Your task to perform on an android device: What's the weather today? Image 0: 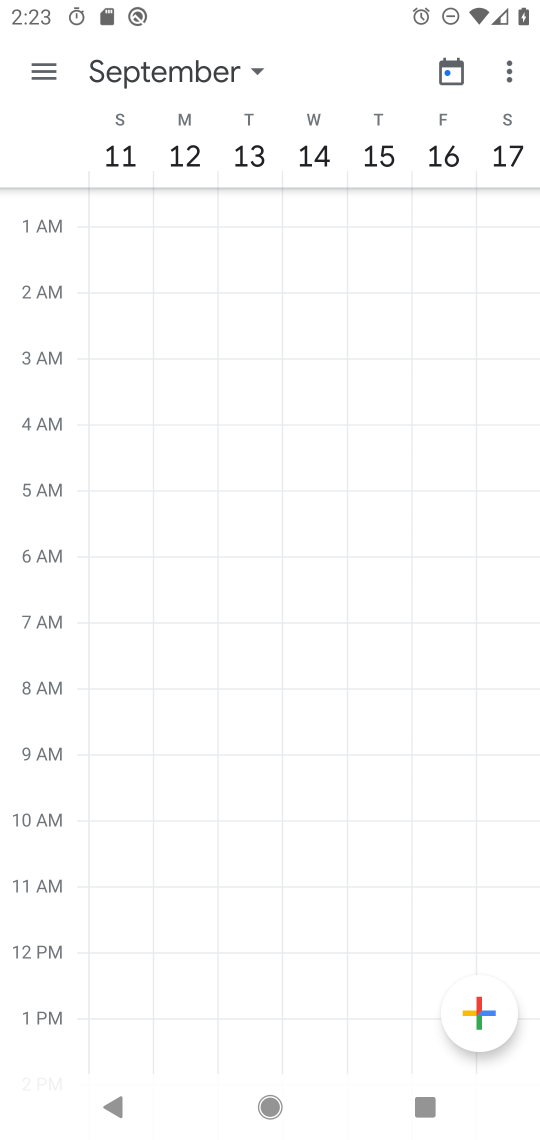
Step 0: press home button
Your task to perform on an android device: What's the weather today? Image 1: 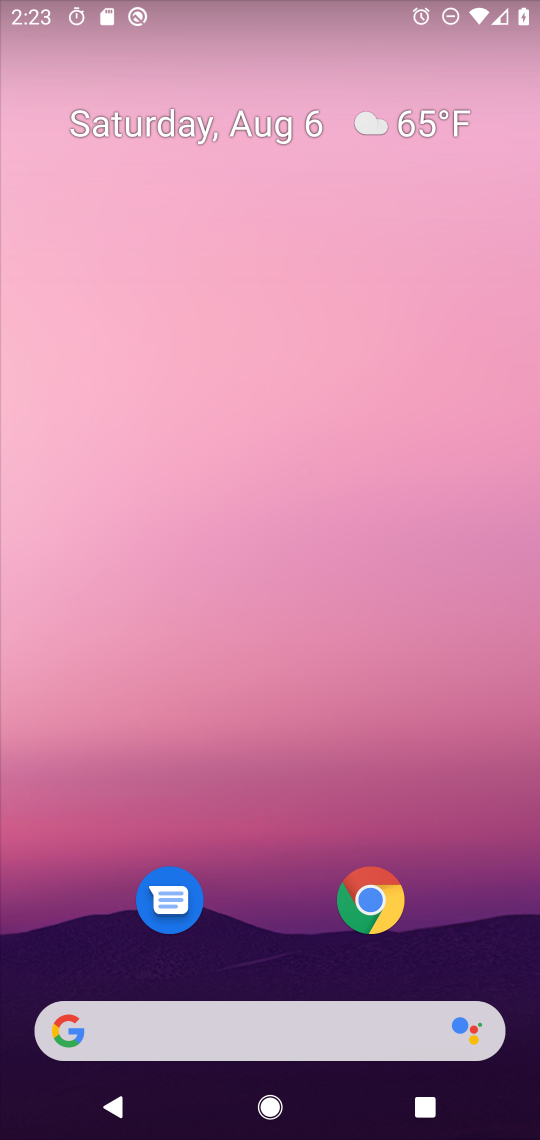
Step 1: drag from (281, 974) to (259, 35)
Your task to perform on an android device: What's the weather today? Image 2: 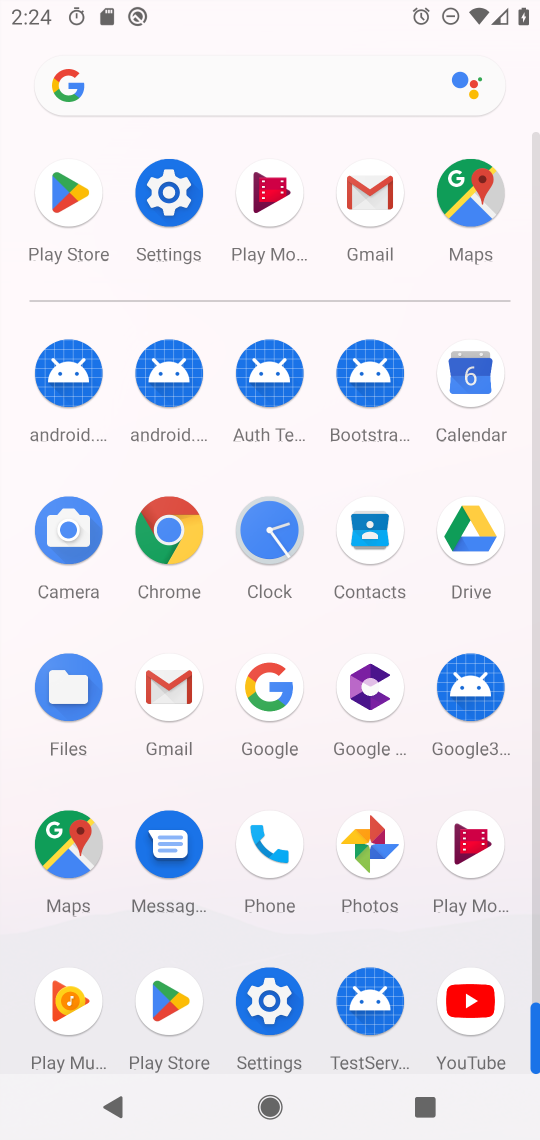
Step 2: click (270, 685)
Your task to perform on an android device: What's the weather today? Image 3: 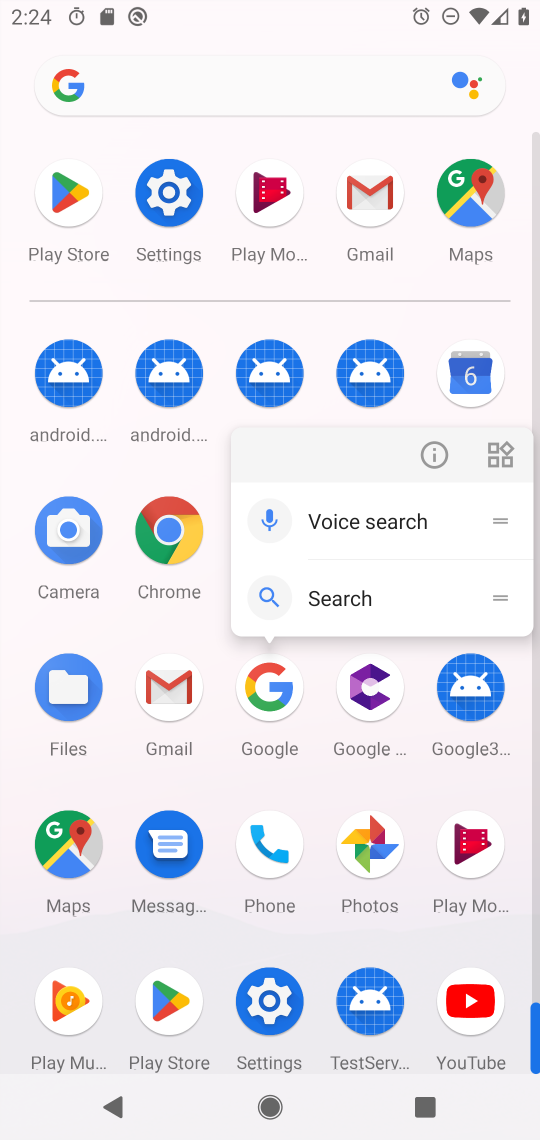
Step 3: click (270, 685)
Your task to perform on an android device: What's the weather today? Image 4: 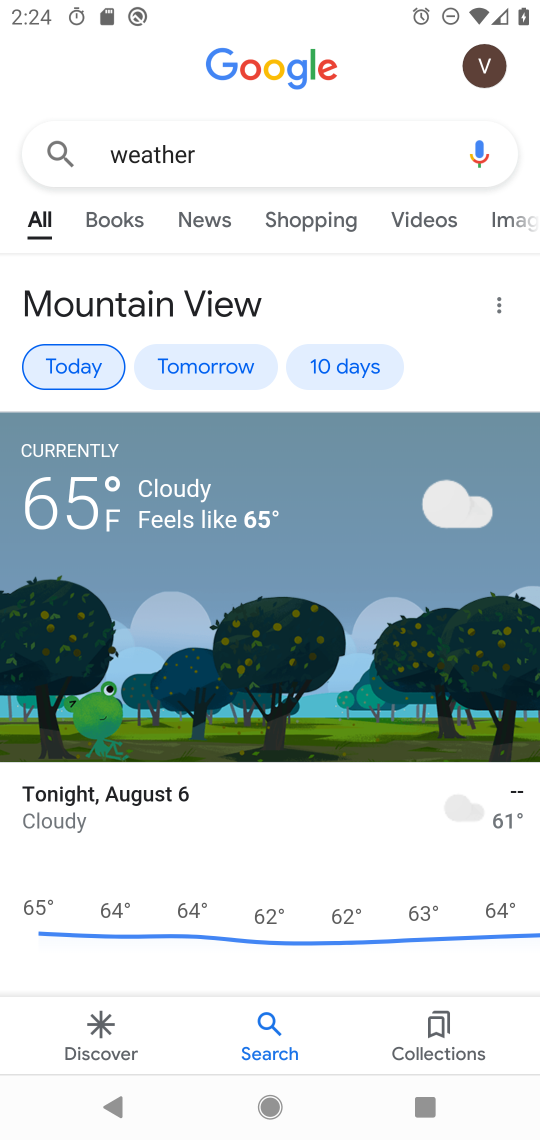
Step 4: click (64, 373)
Your task to perform on an android device: What's the weather today? Image 5: 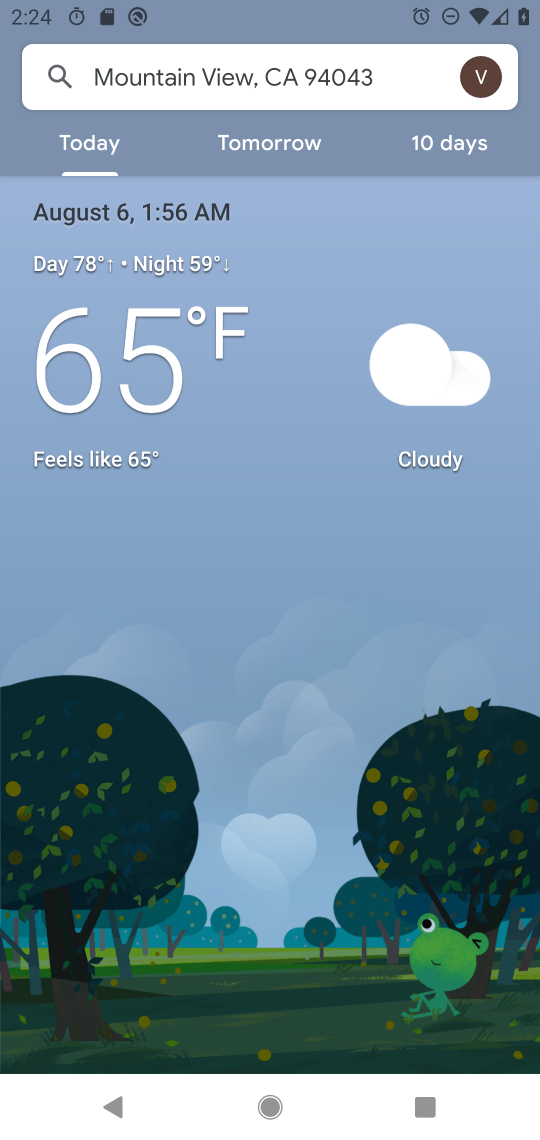
Step 5: task complete